Your task to perform on an android device: install app "Adobe Express: Graphic Design" Image 0: 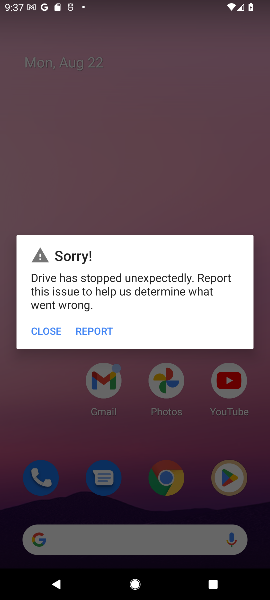
Step 0: click (219, 491)
Your task to perform on an android device: install app "Adobe Express: Graphic Design" Image 1: 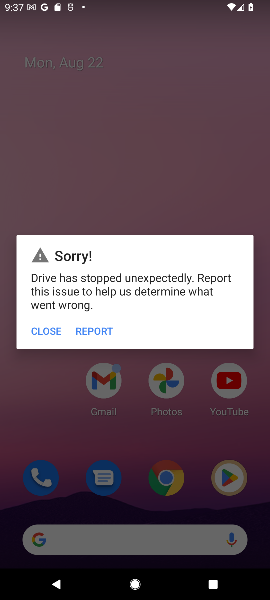
Step 1: click (29, 319)
Your task to perform on an android device: install app "Adobe Express: Graphic Design" Image 2: 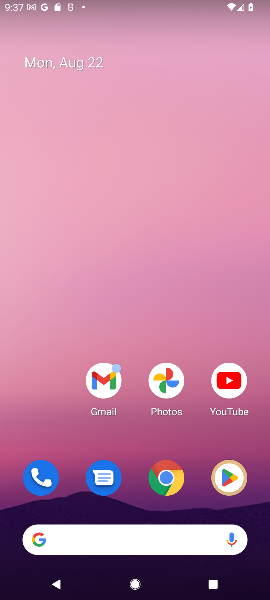
Step 2: click (237, 467)
Your task to perform on an android device: install app "Adobe Express: Graphic Design" Image 3: 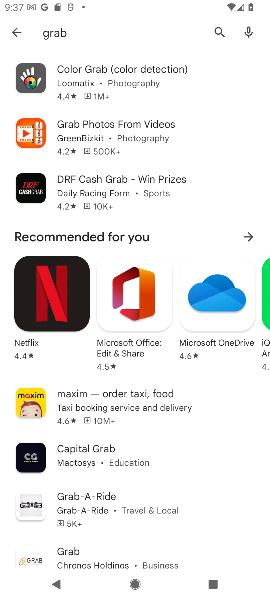
Step 3: click (220, 41)
Your task to perform on an android device: install app "Adobe Express: Graphic Design" Image 4: 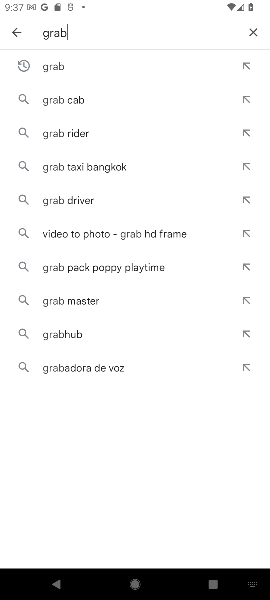
Step 4: click (246, 32)
Your task to perform on an android device: install app "Adobe Express: Graphic Design" Image 5: 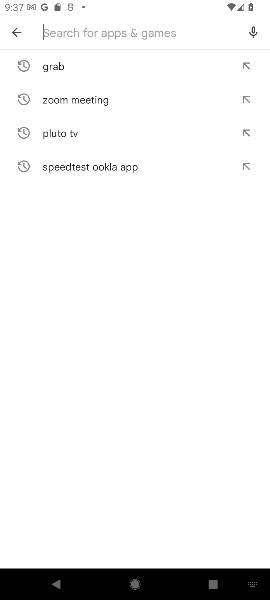
Step 5: type "adobe express"
Your task to perform on an android device: install app "Adobe Express: Graphic Design" Image 6: 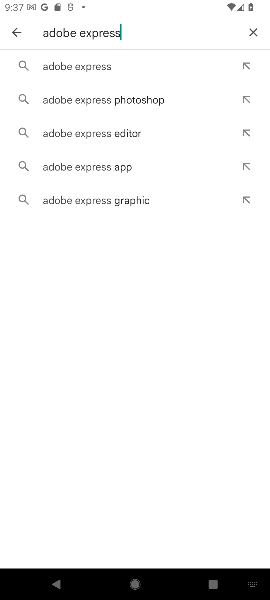
Step 6: click (124, 70)
Your task to perform on an android device: install app "Adobe Express: Graphic Design" Image 7: 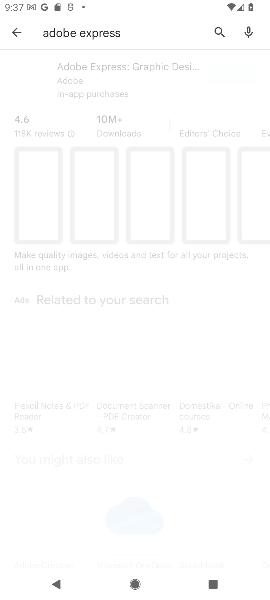
Step 7: click (124, 70)
Your task to perform on an android device: install app "Adobe Express: Graphic Design" Image 8: 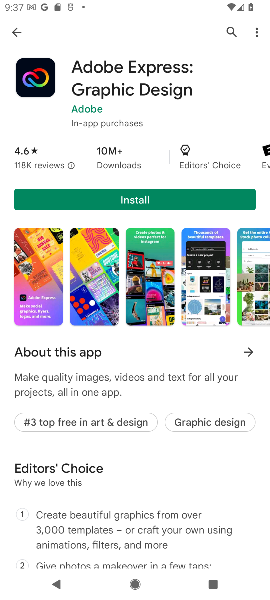
Step 8: click (226, 81)
Your task to perform on an android device: install app "Adobe Express: Graphic Design" Image 9: 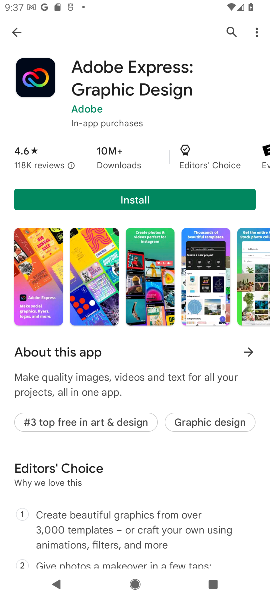
Step 9: click (155, 197)
Your task to perform on an android device: install app "Adobe Express: Graphic Design" Image 10: 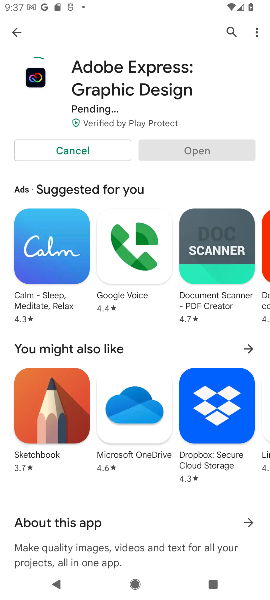
Step 10: task complete